Your task to perform on an android device: delete browsing data in the chrome app Image 0: 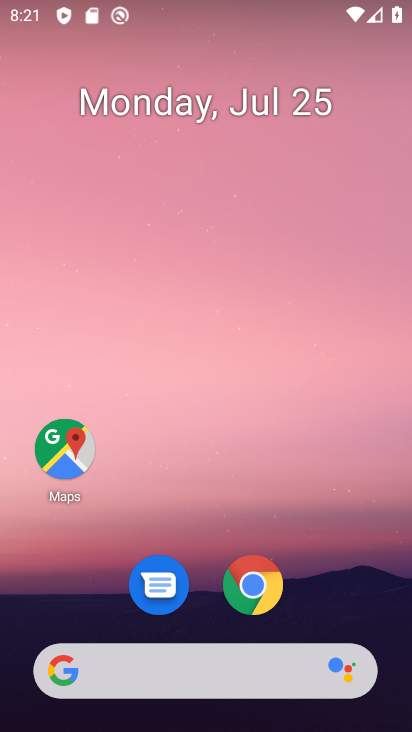
Step 0: click (250, 587)
Your task to perform on an android device: delete browsing data in the chrome app Image 1: 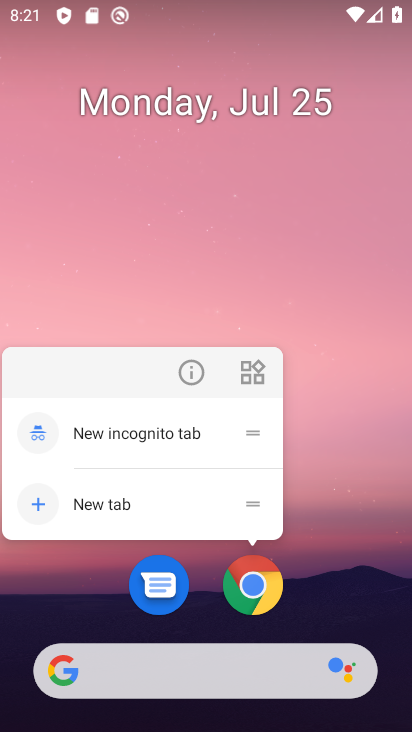
Step 1: click (261, 580)
Your task to perform on an android device: delete browsing data in the chrome app Image 2: 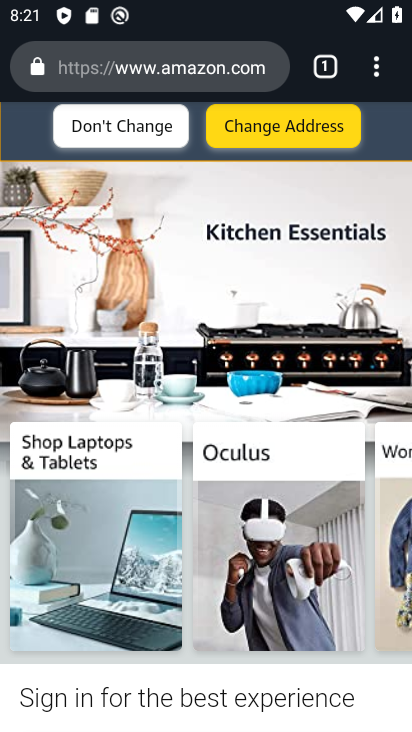
Step 2: drag from (375, 62) to (230, 603)
Your task to perform on an android device: delete browsing data in the chrome app Image 3: 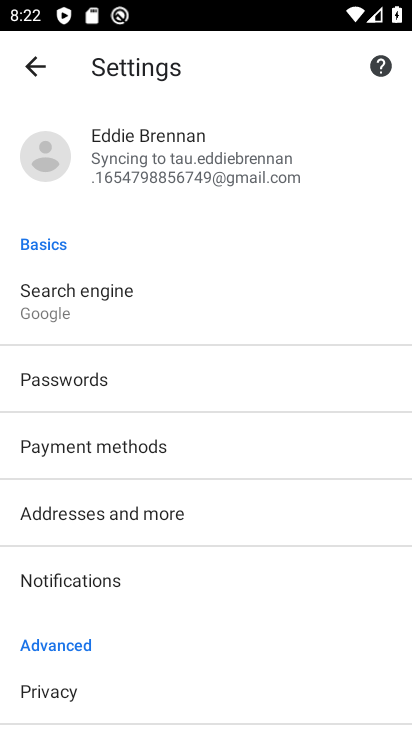
Step 3: drag from (201, 639) to (289, 211)
Your task to perform on an android device: delete browsing data in the chrome app Image 4: 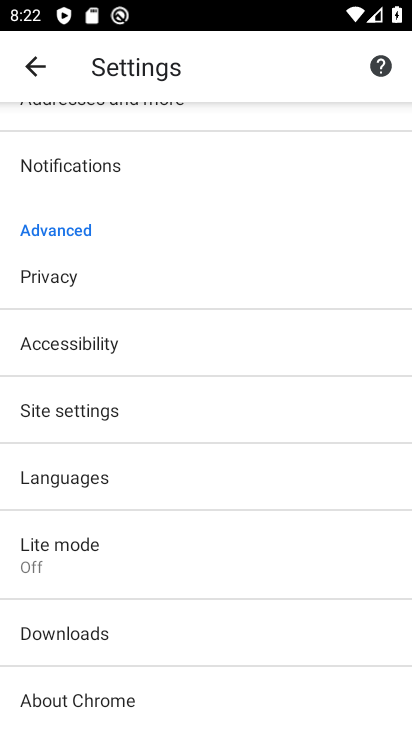
Step 4: click (53, 272)
Your task to perform on an android device: delete browsing data in the chrome app Image 5: 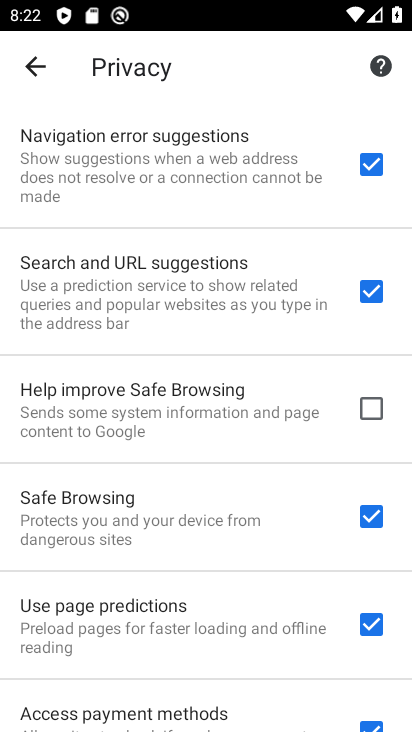
Step 5: drag from (167, 638) to (343, 79)
Your task to perform on an android device: delete browsing data in the chrome app Image 6: 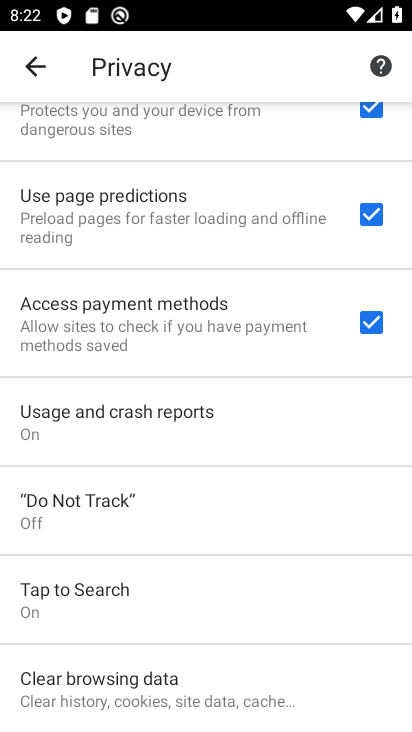
Step 6: click (148, 693)
Your task to perform on an android device: delete browsing data in the chrome app Image 7: 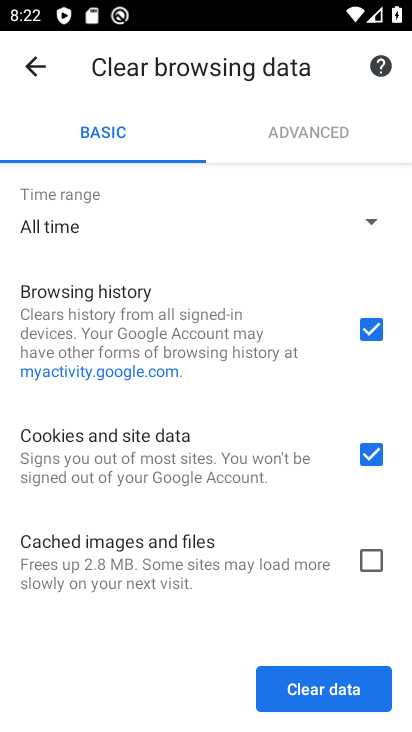
Step 7: click (373, 556)
Your task to perform on an android device: delete browsing data in the chrome app Image 8: 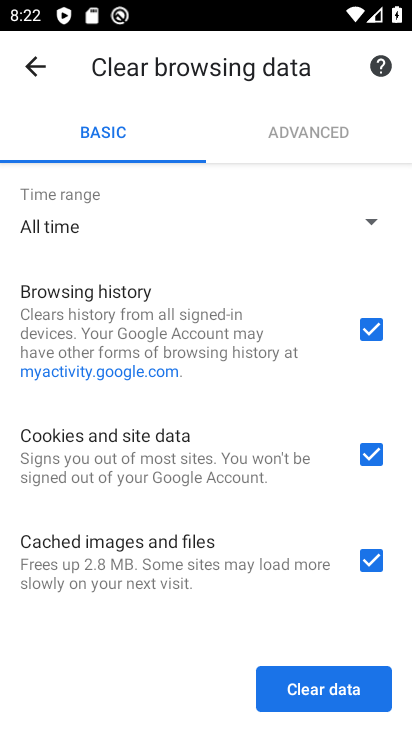
Step 8: click (331, 690)
Your task to perform on an android device: delete browsing data in the chrome app Image 9: 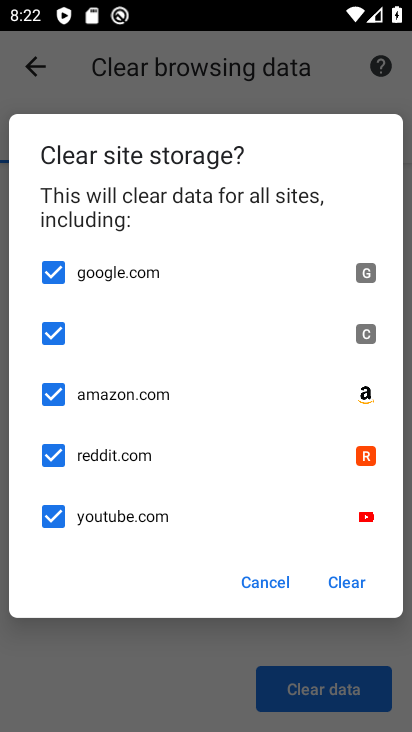
Step 9: click (359, 577)
Your task to perform on an android device: delete browsing data in the chrome app Image 10: 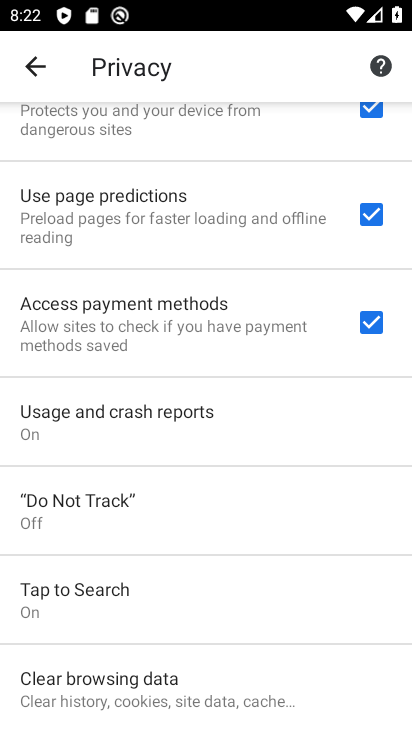
Step 10: task complete